Your task to perform on an android device: Go to battery settings Image 0: 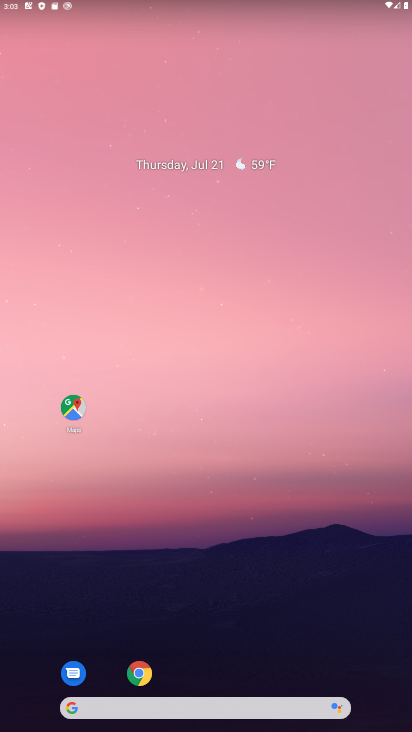
Step 0: drag from (311, 644) to (203, 55)
Your task to perform on an android device: Go to battery settings Image 1: 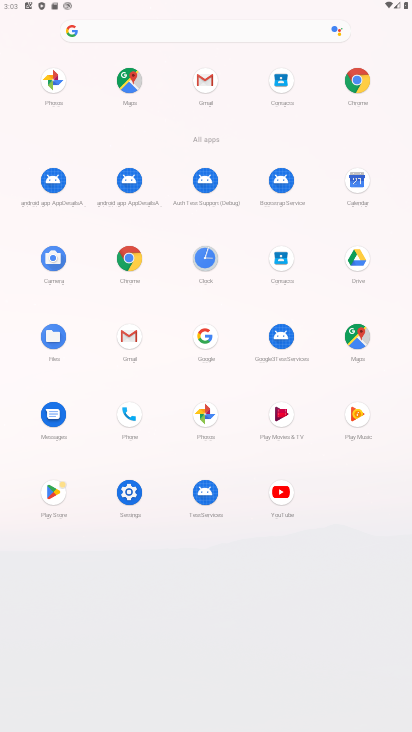
Step 1: click (125, 504)
Your task to perform on an android device: Go to battery settings Image 2: 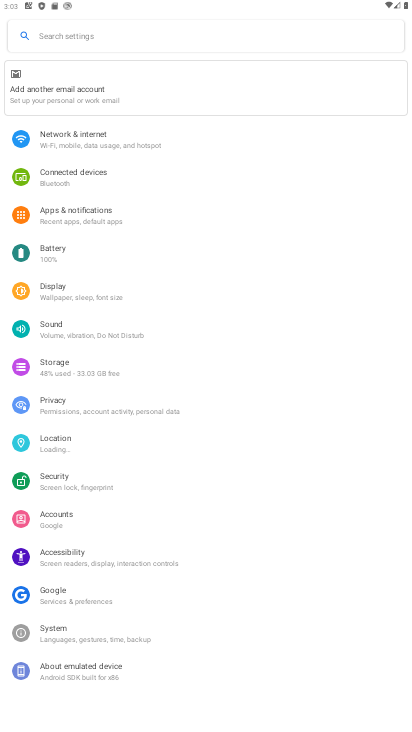
Step 2: click (161, 261)
Your task to perform on an android device: Go to battery settings Image 3: 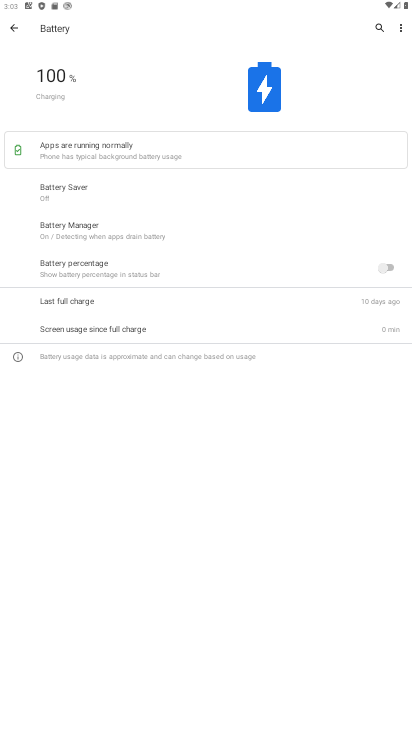
Step 3: task complete